Your task to perform on an android device: Add "razer blackwidow" to the cart on ebay Image 0: 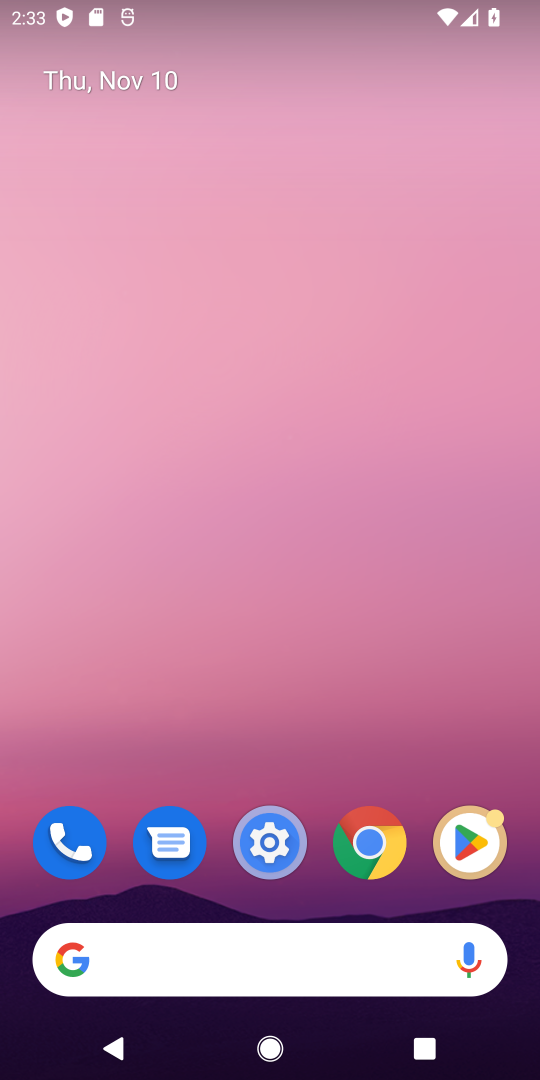
Step 0: press home button
Your task to perform on an android device: Add "razer blackwidow" to the cart on ebay Image 1: 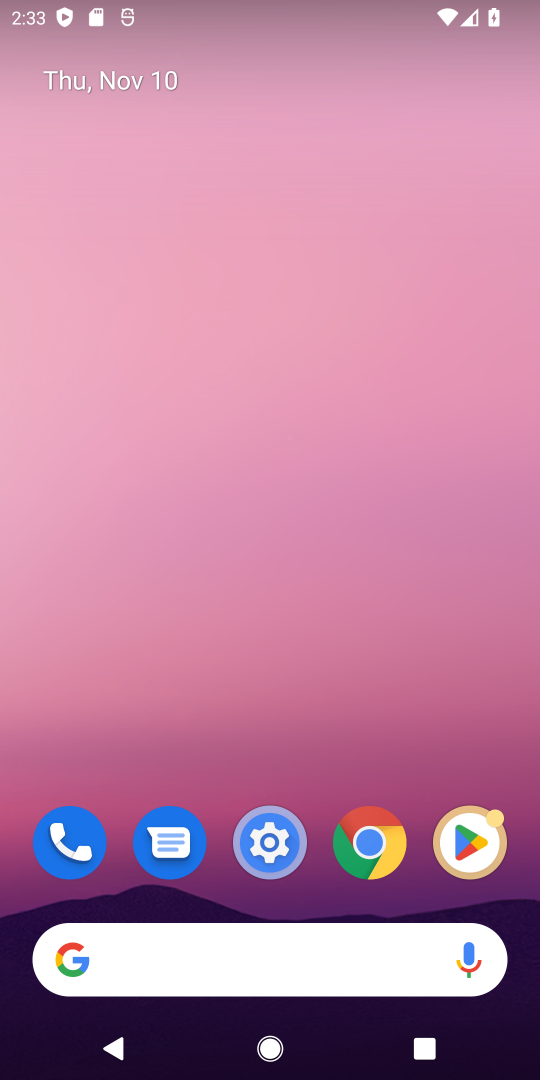
Step 1: click (114, 953)
Your task to perform on an android device: Add "razer blackwidow" to the cart on ebay Image 2: 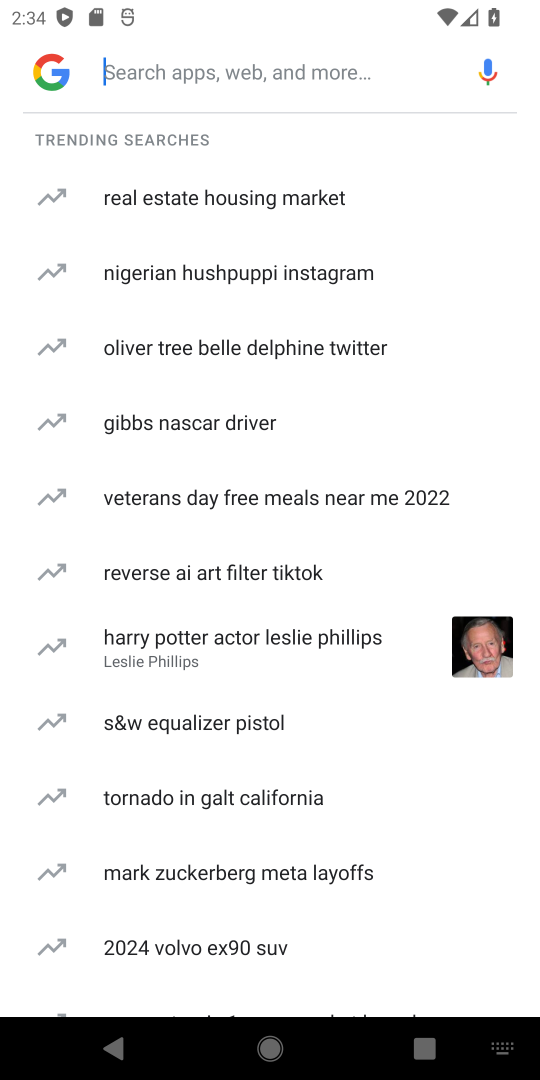
Step 2: type "ebay"
Your task to perform on an android device: Add "razer blackwidow" to the cart on ebay Image 3: 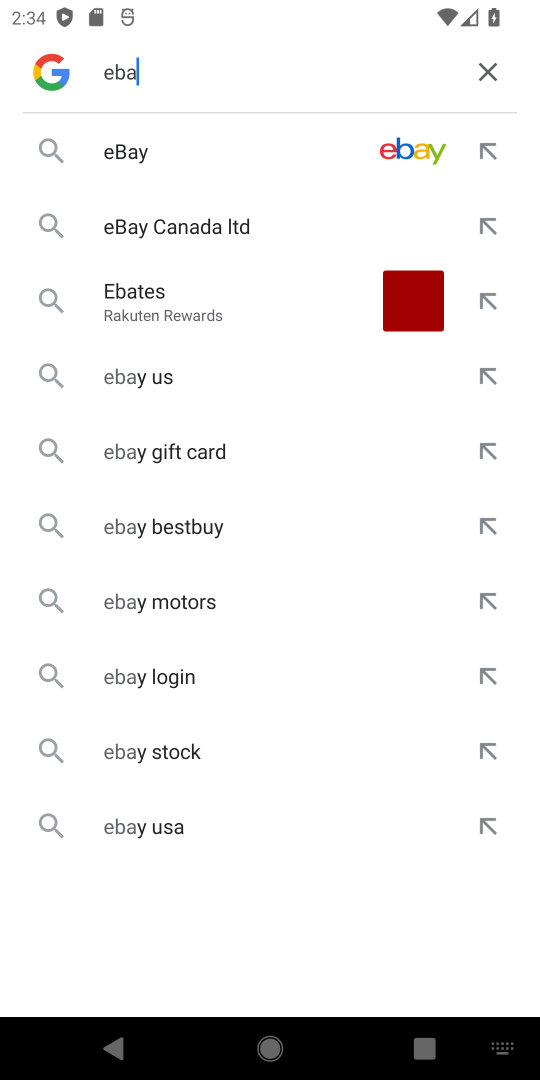
Step 3: press enter
Your task to perform on an android device: Add "razer blackwidow" to the cart on ebay Image 4: 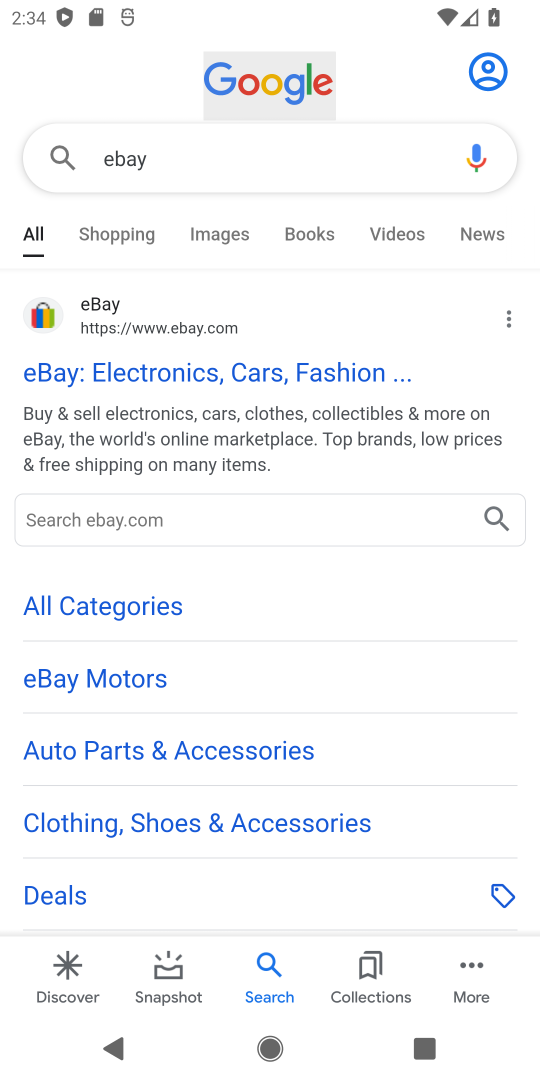
Step 4: click (106, 365)
Your task to perform on an android device: Add "razer blackwidow" to the cart on ebay Image 5: 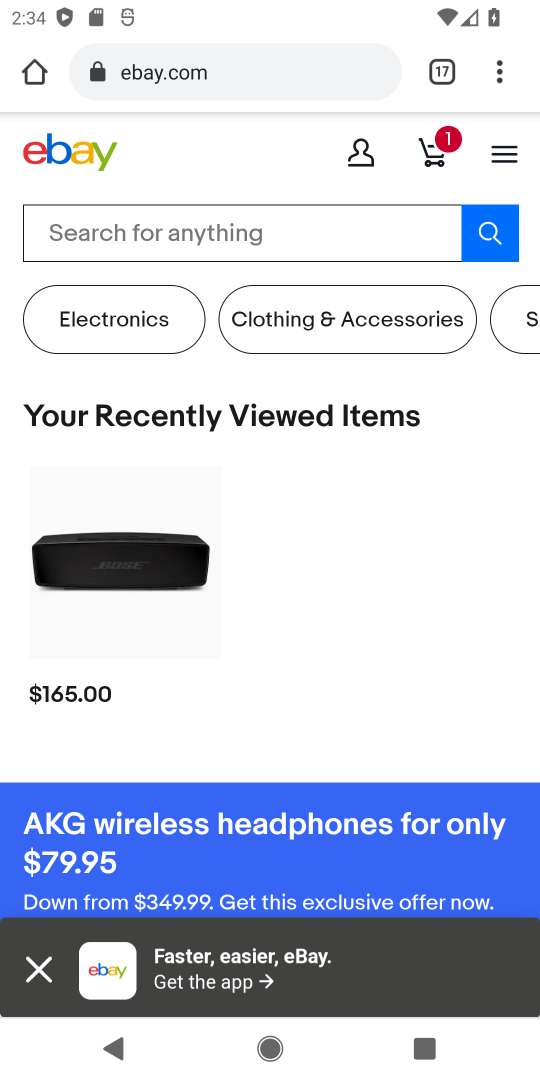
Step 5: click (197, 230)
Your task to perform on an android device: Add "razer blackwidow" to the cart on ebay Image 6: 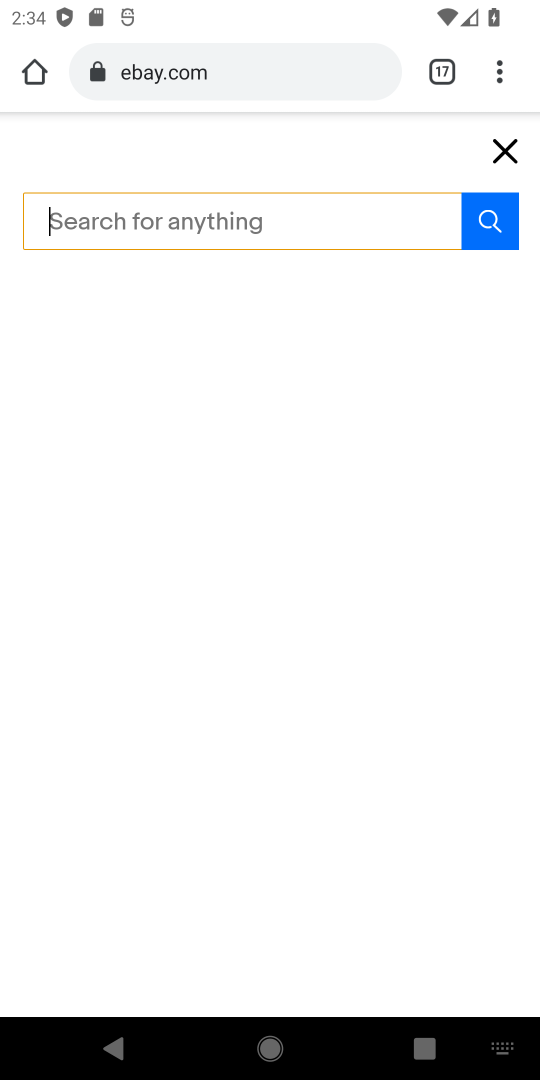
Step 6: type "razer blackwidow"
Your task to perform on an android device: Add "razer blackwidow" to the cart on ebay Image 7: 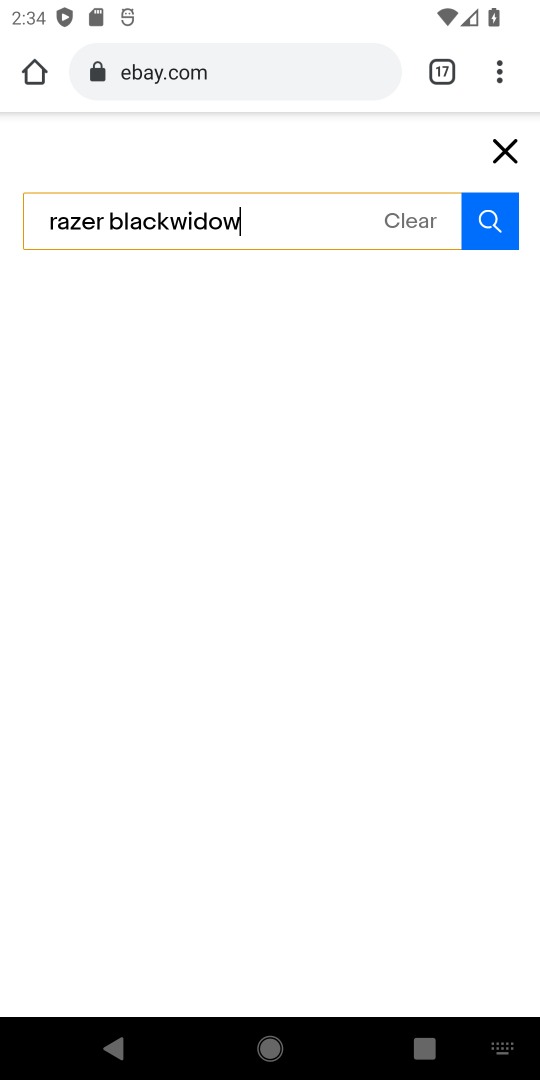
Step 7: press enter
Your task to perform on an android device: Add "razer blackwidow" to the cart on ebay Image 8: 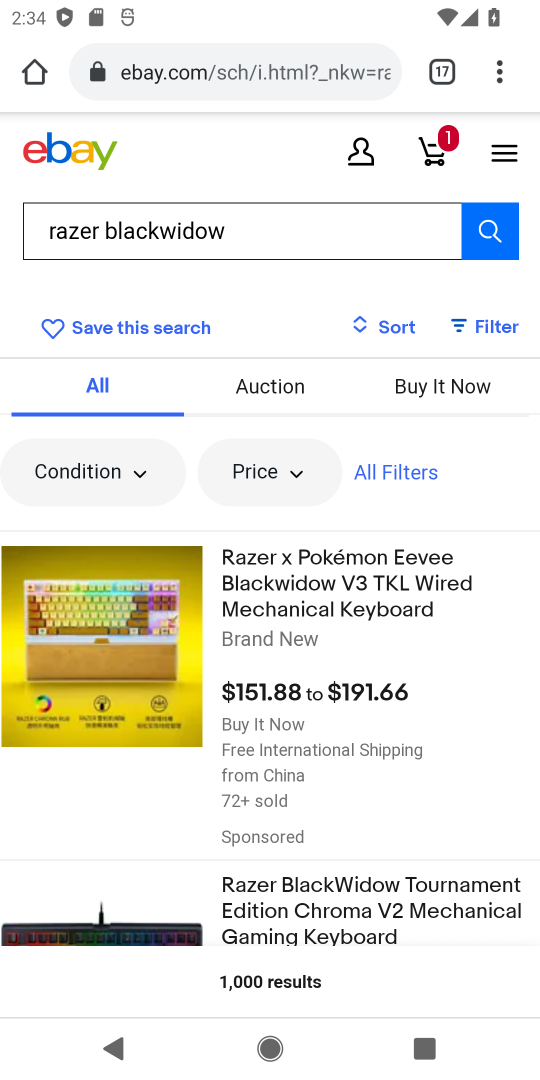
Step 8: drag from (386, 838) to (407, 554)
Your task to perform on an android device: Add "razer blackwidow" to the cart on ebay Image 9: 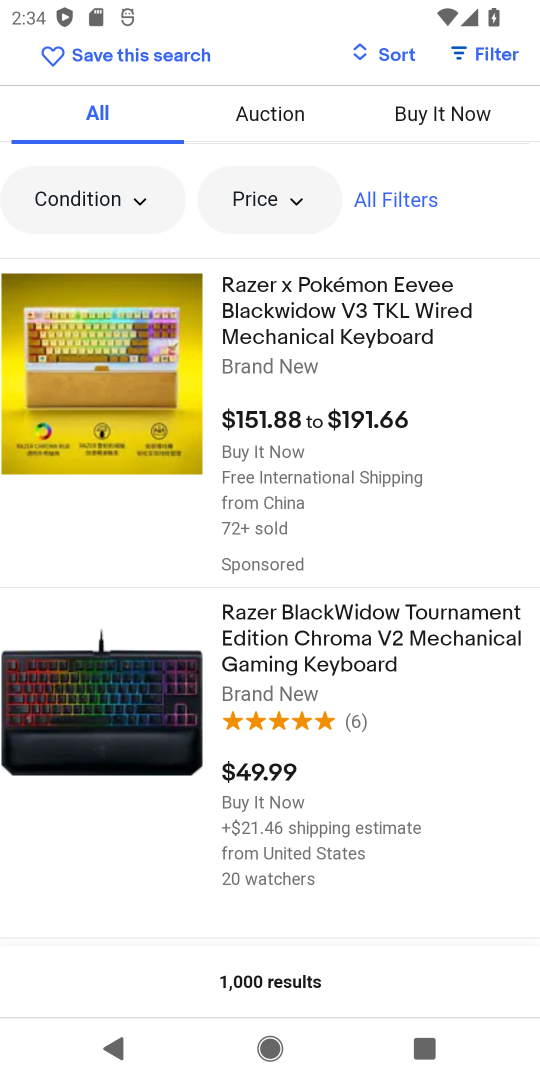
Step 9: click (314, 643)
Your task to perform on an android device: Add "razer blackwidow" to the cart on ebay Image 10: 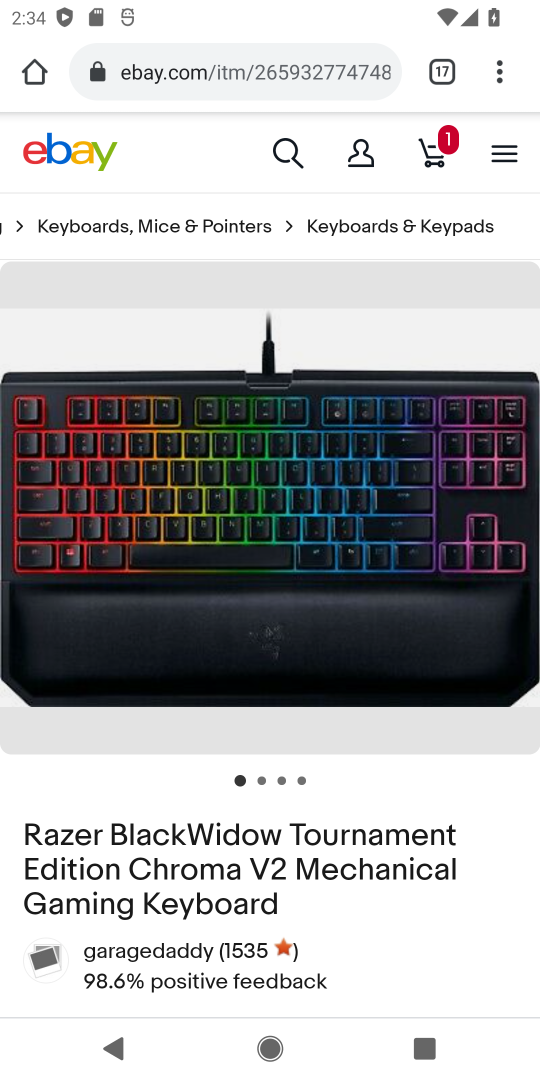
Step 10: drag from (327, 828) to (353, 468)
Your task to perform on an android device: Add "razer blackwidow" to the cart on ebay Image 11: 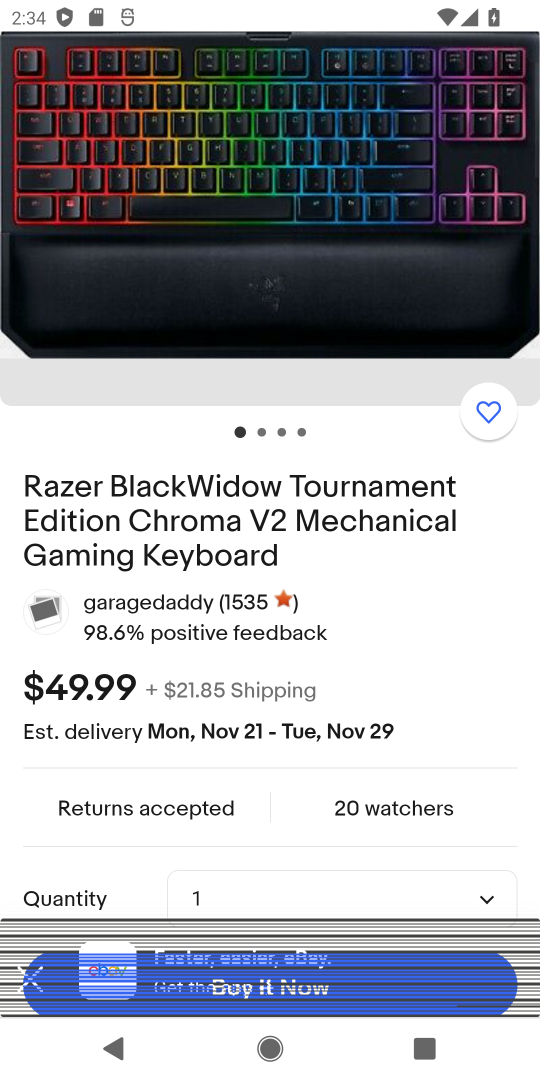
Step 11: drag from (278, 814) to (343, 445)
Your task to perform on an android device: Add "razer blackwidow" to the cart on ebay Image 12: 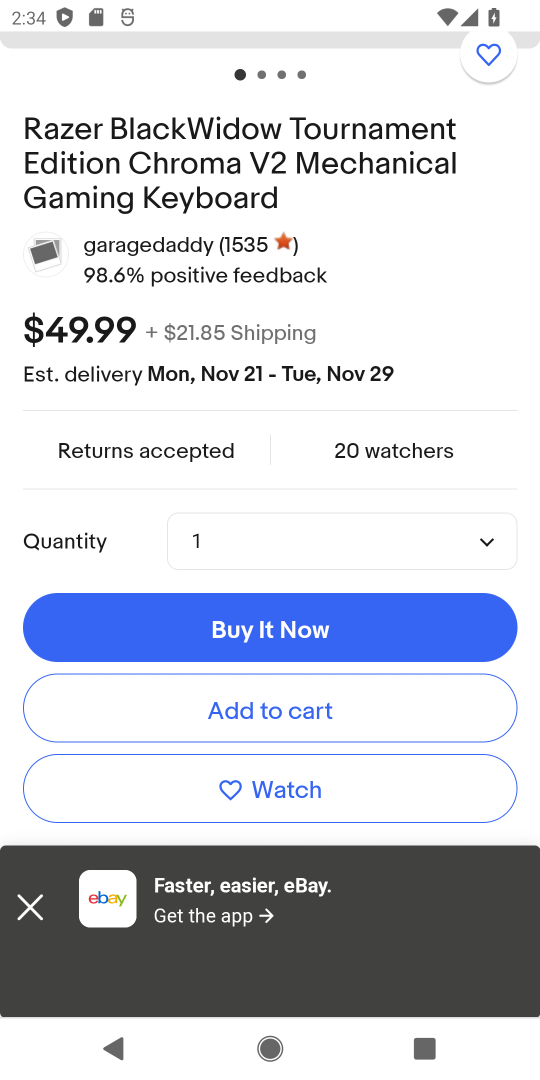
Step 12: click (240, 708)
Your task to perform on an android device: Add "razer blackwidow" to the cart on ebay Image 13: 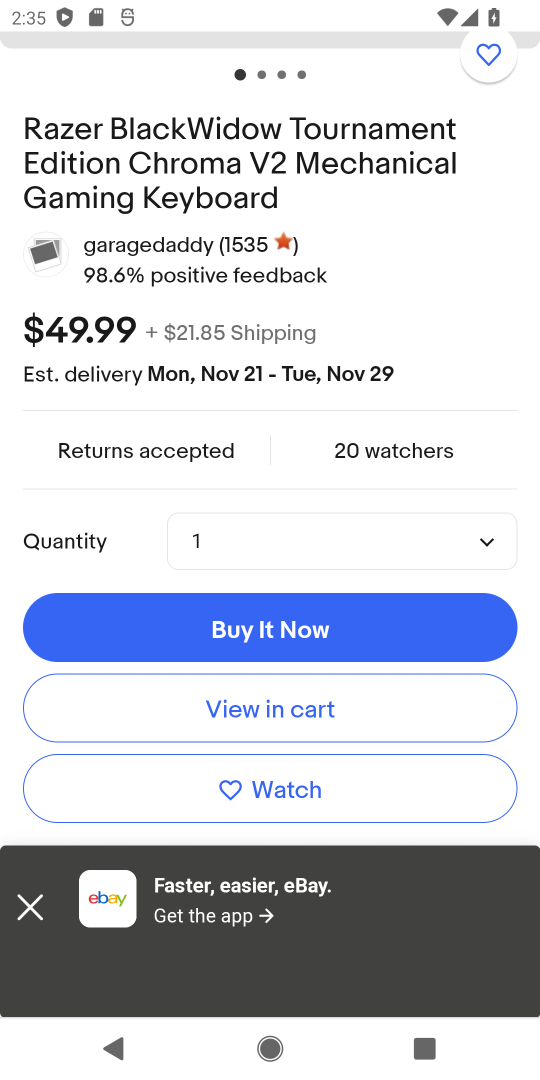
Step 13: task complete